Your task to perform on an android device: Open wifi settings Image 0: 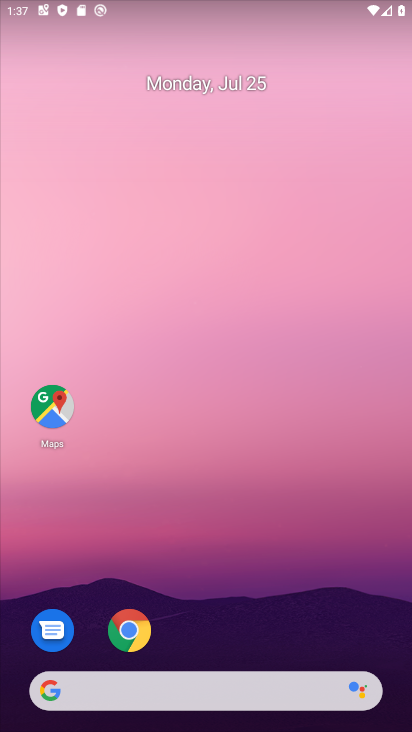
Step 0: drag from (280, 646) to (254, 155)
Your task to perform on an android device: Open wifi settings Image 1: 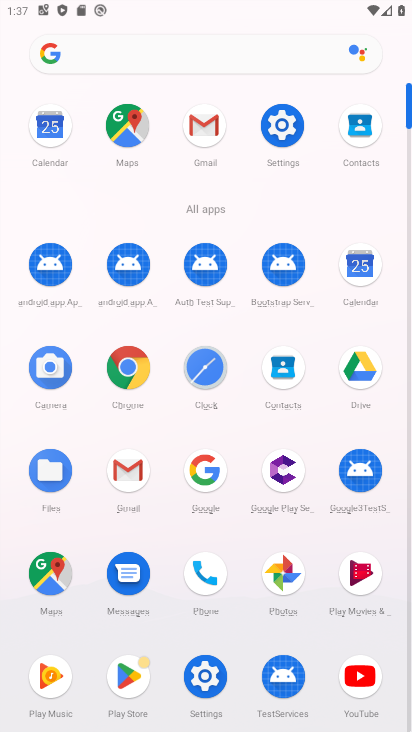
Step 1: click (278, 135)
Your task to perform on an android device: Open wifi settings Image 2: 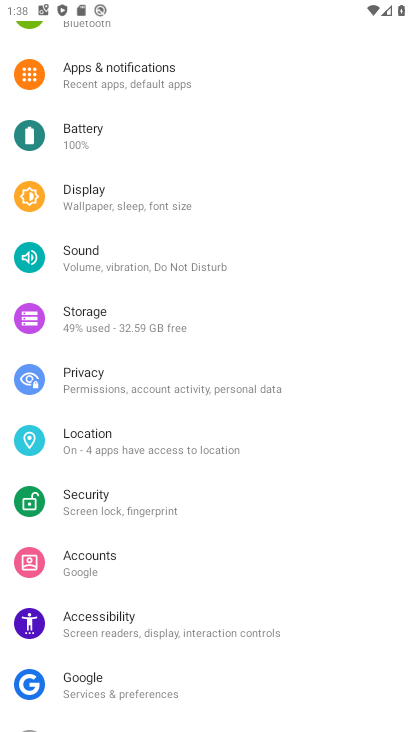
Step 2: drag from (136, 119) to (189, 484)
Your task to perform on an android device: Open wifi settings Image 3: 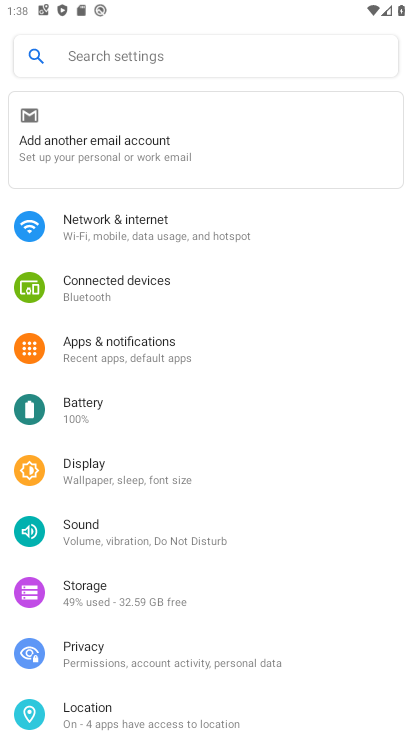
Step 3: click (218, 239)
Your task to perform on an android device: Open wifi settings Image 4: 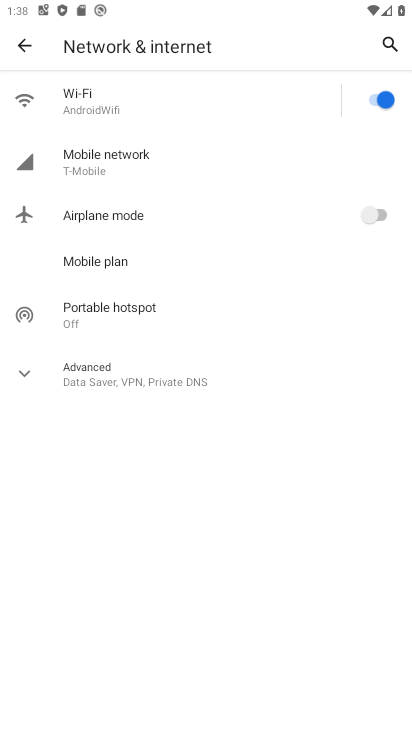
Step 4: click (148, 102)
Your task to perform on an android device: Open wifi settings Image 5: 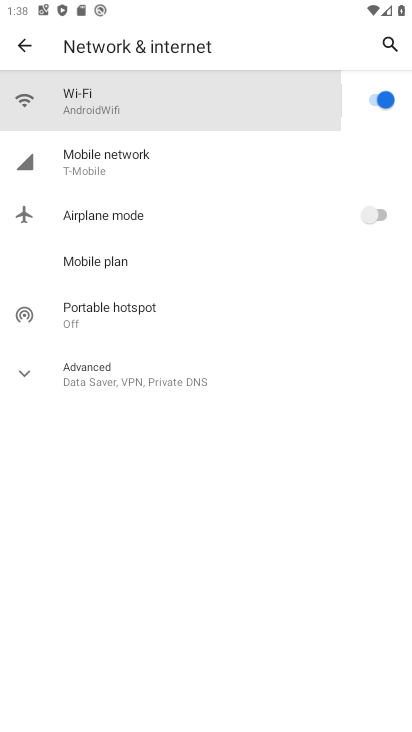
Step 5: task complete